Your task to perform on an android device: Search for the best selling vase on Crate & Barrel Image 0: 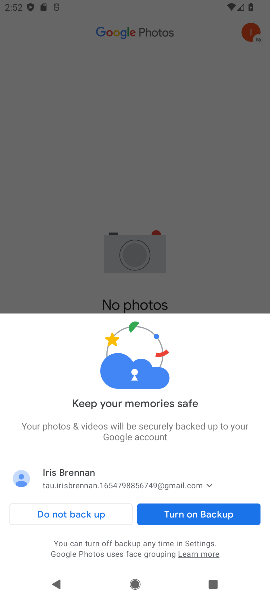
Step 0: press home button
Your task to perform on an android device: Search for the best selling vase on Crate & Barrel Image 1: 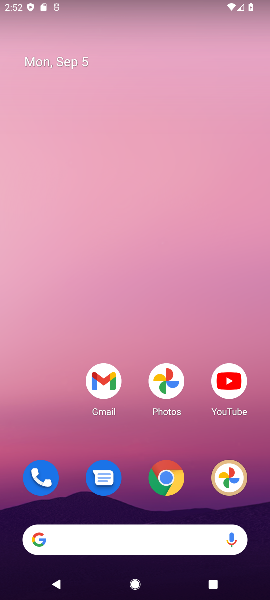
Step 1: drag from (175, 511) to (232, 252)
Your task to perform on an android device: Search for the best selling vase on Crate & Barrel Image 2: 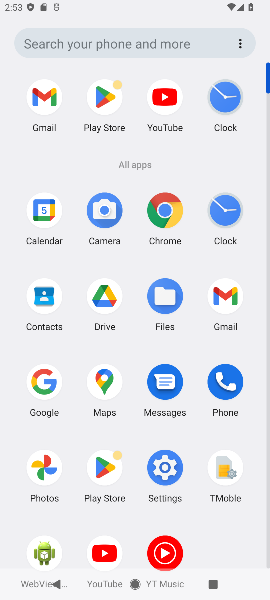
Step 2: click (168, 233)
Your task to perform on an android device: Search for the best selling vase on Crate & Barrel Image 3: 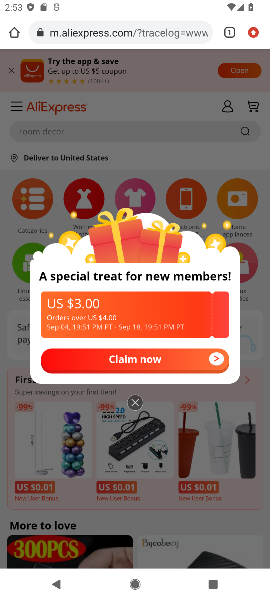
Step 3: click (144, 33)
Your task to perform on an android device: Search for the best selling vase on Crate & Barrel Image 4: 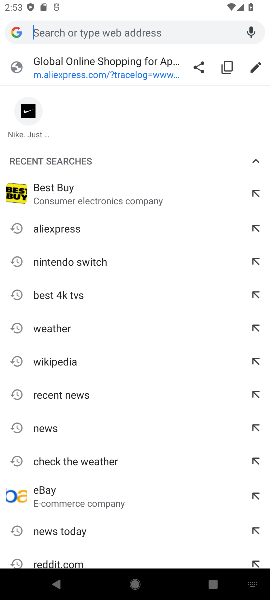
Step 4: type "crate and barrel"
Your task to perform on an android device: Search for the best selling vase on Crate & Barrel Image 5: 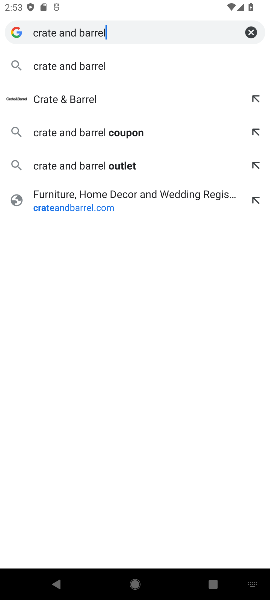
Step 5: click (94, 96)
Your task to perform on an android device: Search for the best selling vase on Crate & Barrel Image 6: 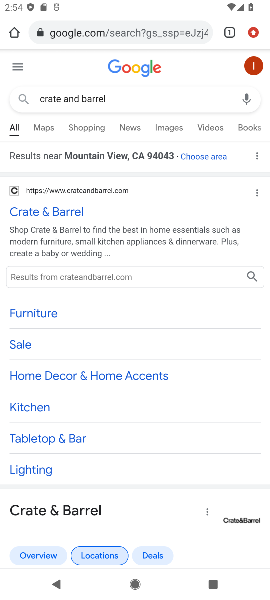
Step 6: click (54, 212)
Your task to perform on an android device: Search for the best selling vase on Crate & Barrel Image 7: 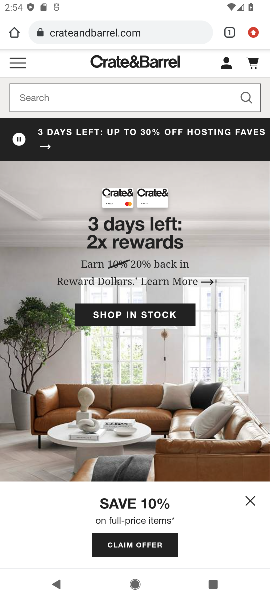
Step 7: click (138, 101)
Your task to perform on an android device: Search for the best selling vase on Crate & Barrel Image 8: 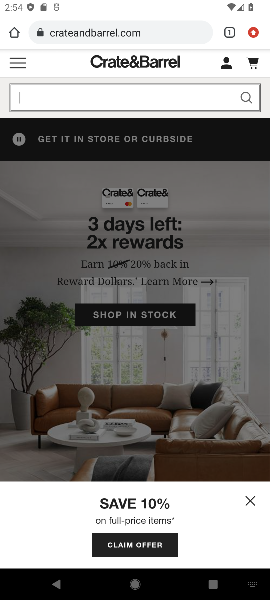
Step 8: type "best selling vase"
Your task to perform on an android device: Search for the best selling vase on Crate & Barrel Image 9: 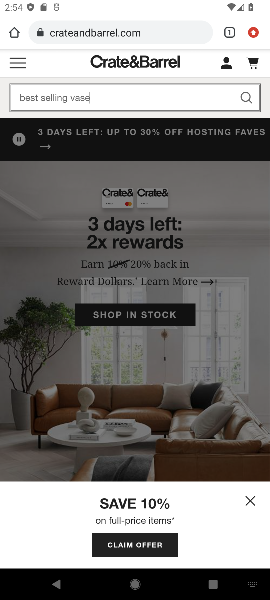
Step 9: click (239, 101)
Your task to perform on an android device: Search for the best selling vase on Crate & Barrel Image 10: 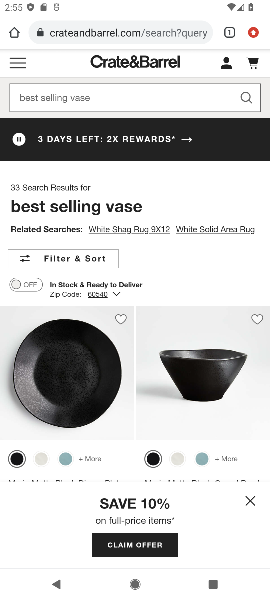
Step 10: task complete